Your task to perform on an android device: install app "PUBG MOBILE" Image 0: 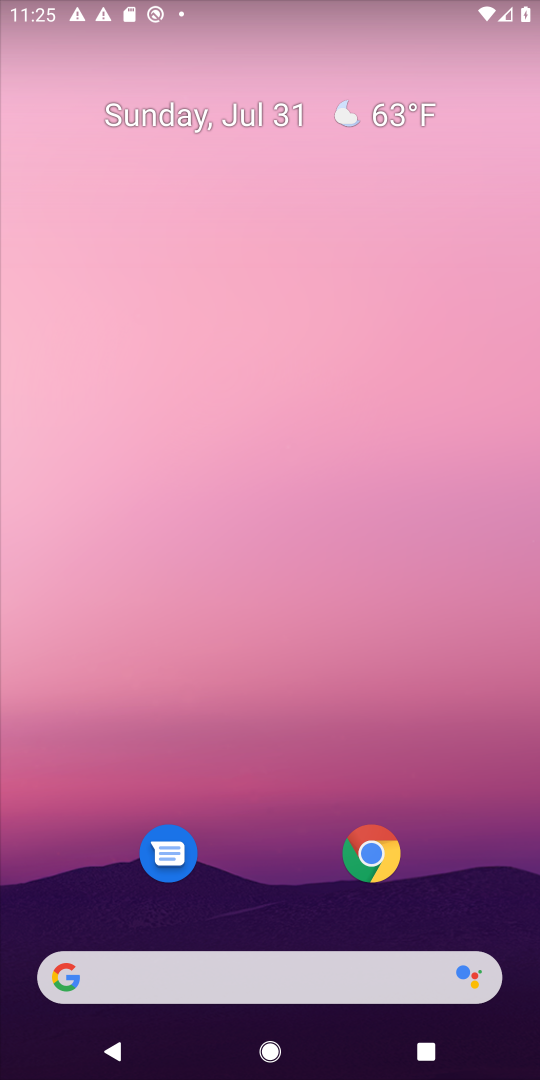
Step 0: drag from (293, 1028) to (293, 106)
Your task to perform on an android device: install app "PUBG MOBILE" Image 1: 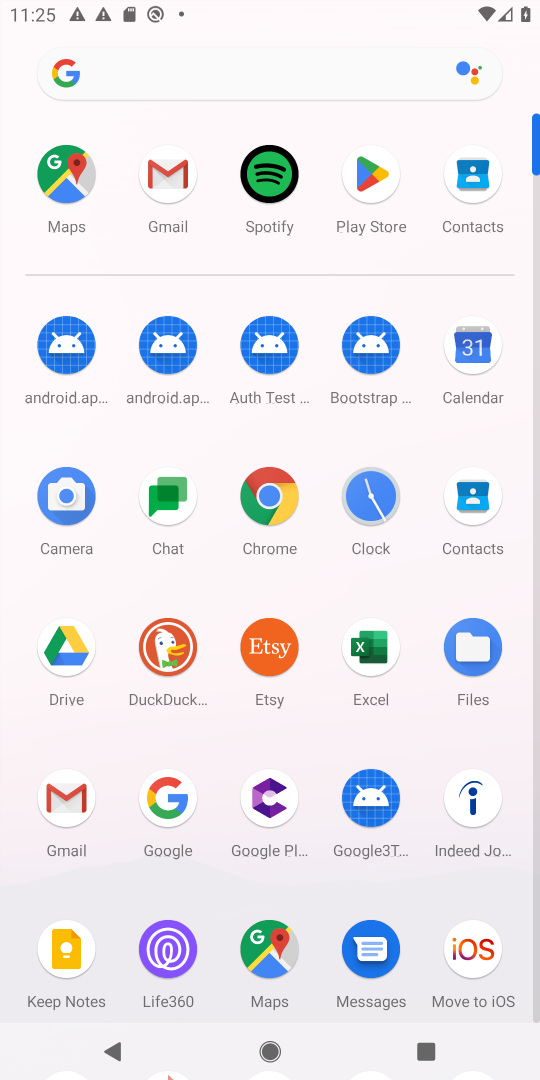
Step 1: click (378, 177)
Your task to perform on an android device: install app "PUBG MOBILE" Image 2: 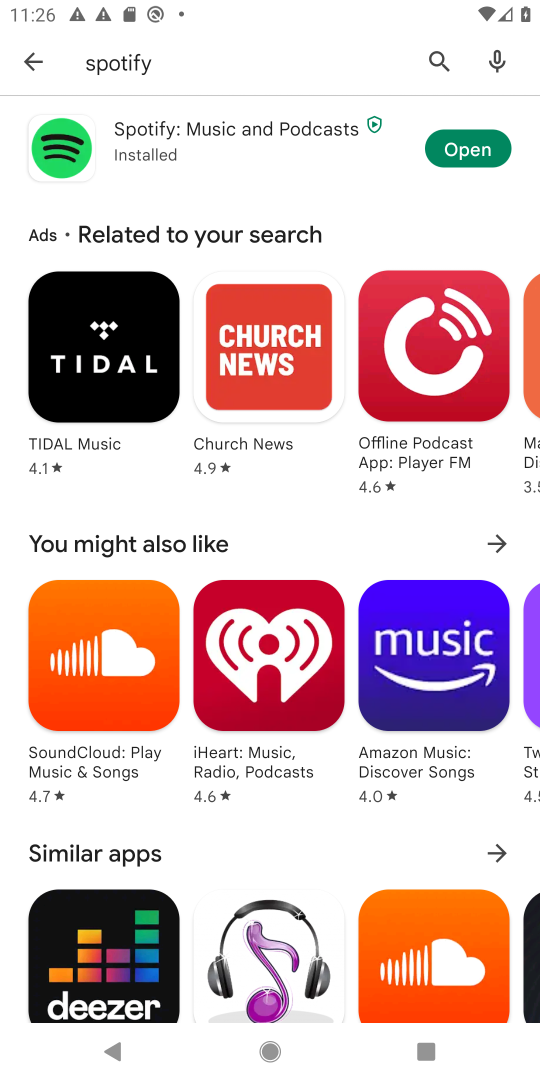
Step 2: click (438, 58)
Your task to perform on an android device: install app "PUBG MOBILE" Image 3: 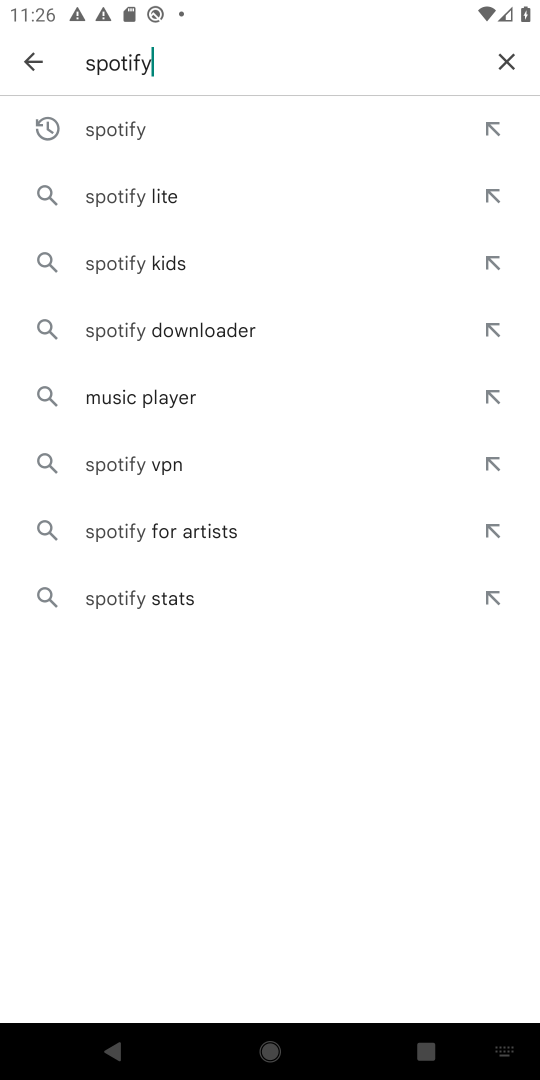
Step 3: click (506, 64)
Your task to perform on an android device: install app "PUBG MOBILE" Image 4: 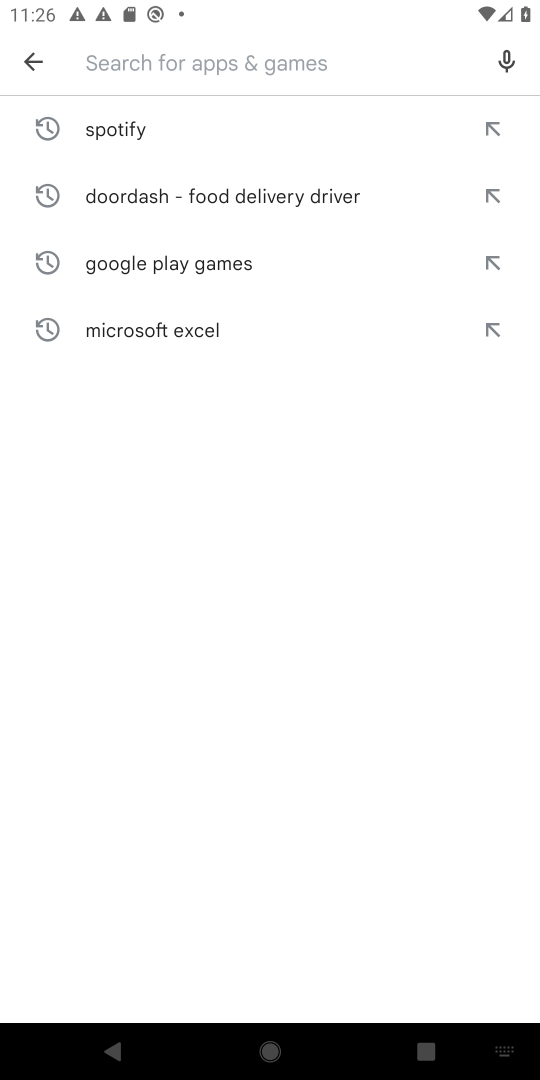
Step 4: type "PUBG MOBILE"
Your task to perform on an android device: install app "PUBG MOBILE" Image 5: 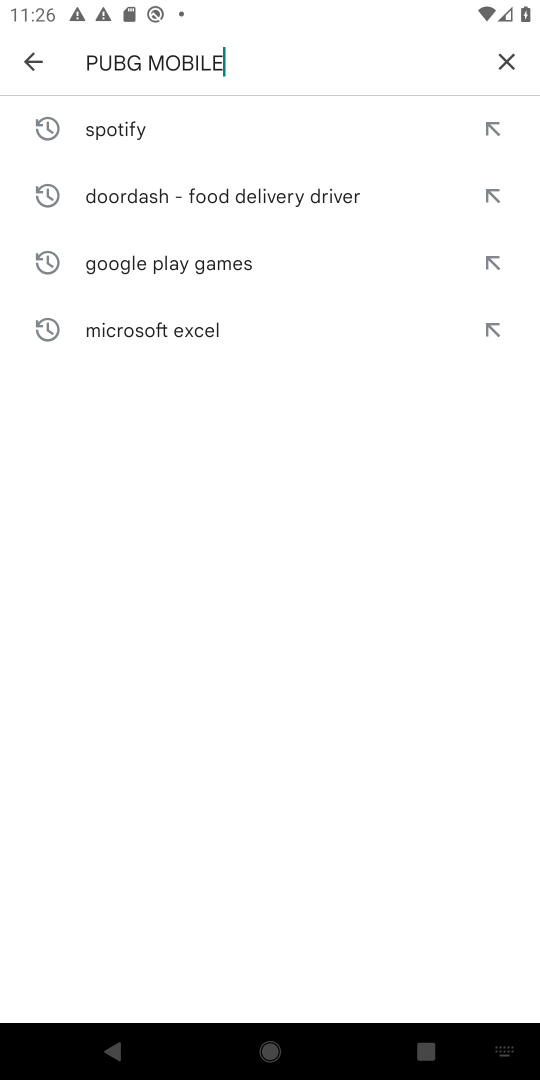
Step 5: type ""
Your task to perform on an android device: install app "PUBG MOBILE" Image 6: 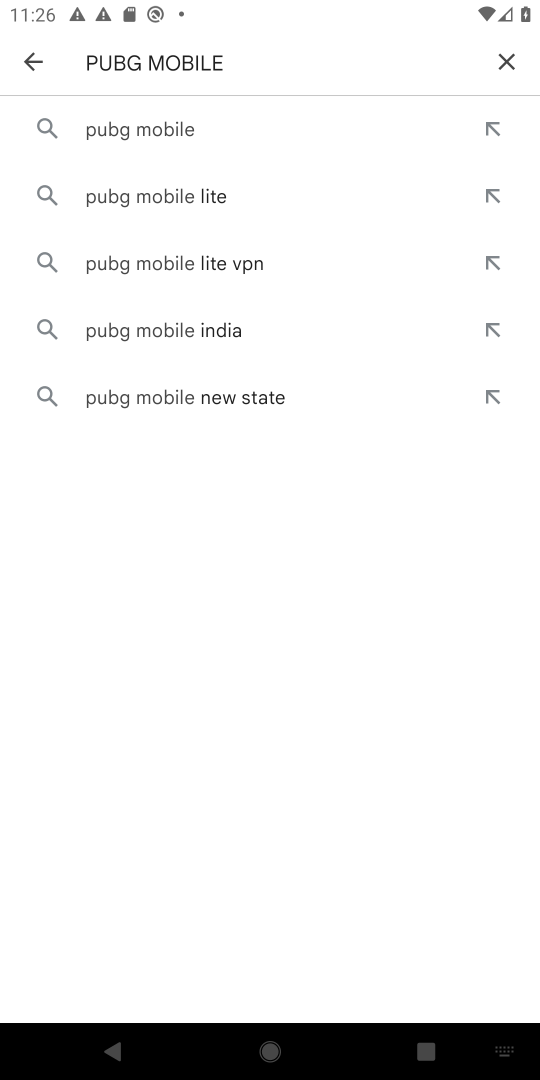
Step 6: click (162, 129)
Your task to perform on an android device: install app "PUBG MOBILE" Image 7: 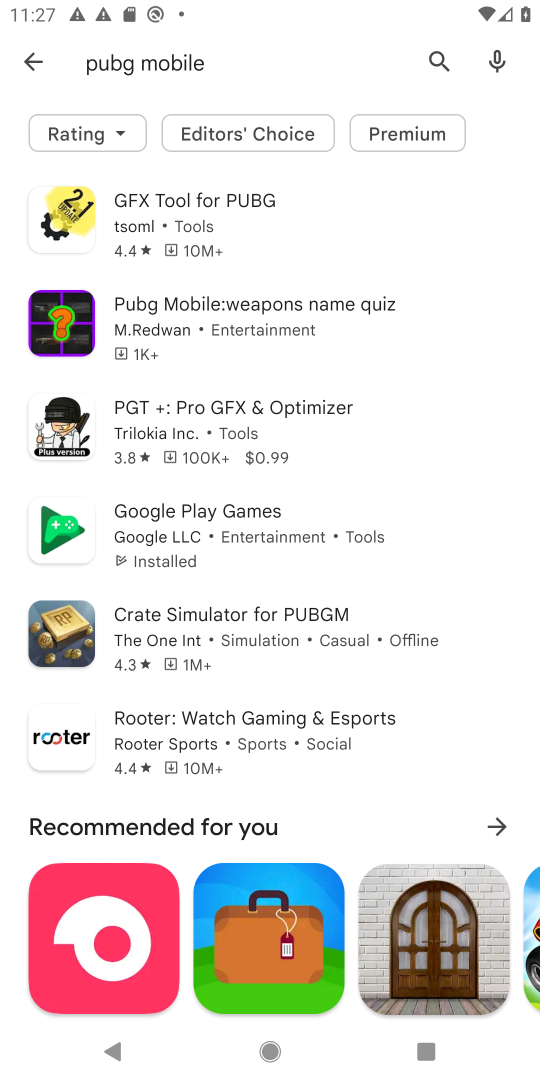
Step 7: task complete